Your task to perform on an android device: Open Google Maps Image 0: 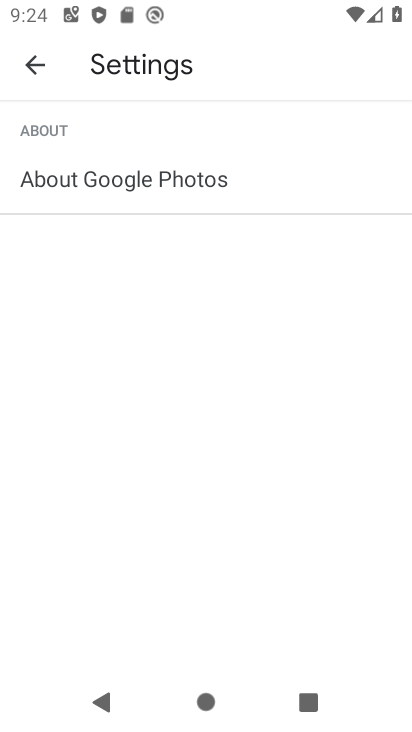
Step 0: press home button
Your task to perform on an android device: Open Google Maps Image 1: 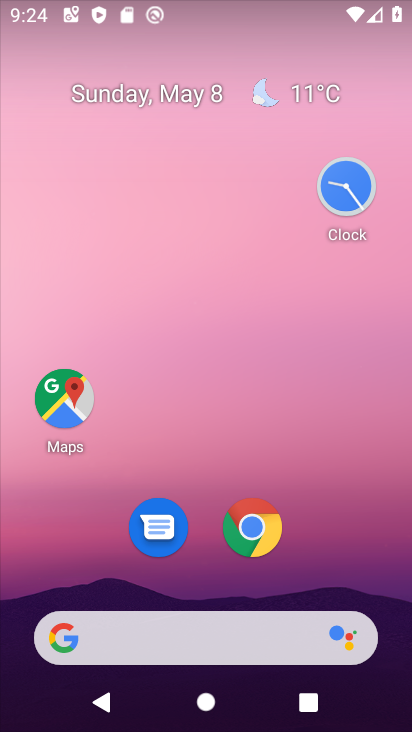
Step 1: click (64, 395)
Your task to perform on an android device: Open Google Maps Image 2: 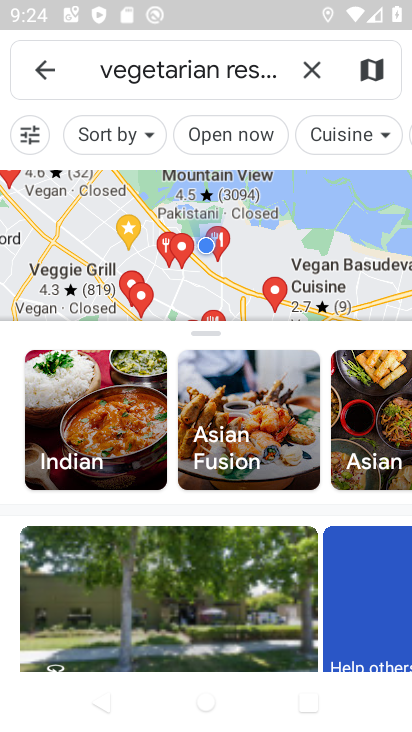
Step 2: task complete